Your task to perform on an android device: turn on improve location accuracy Image 0: 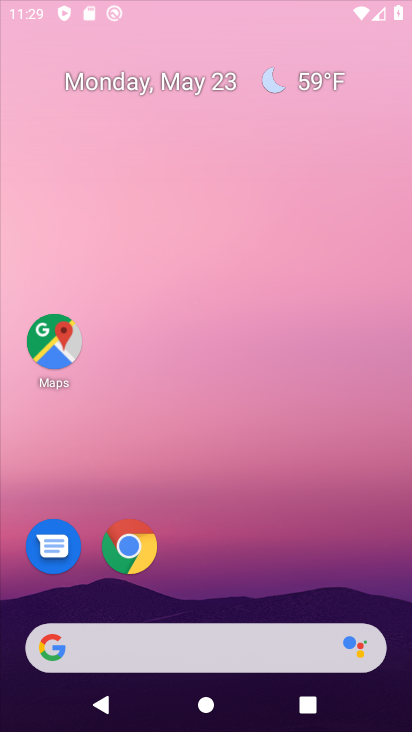
Step 0: click (219, 281)
Your task to perform on an android device: turn on improve location accuracy Image 1: 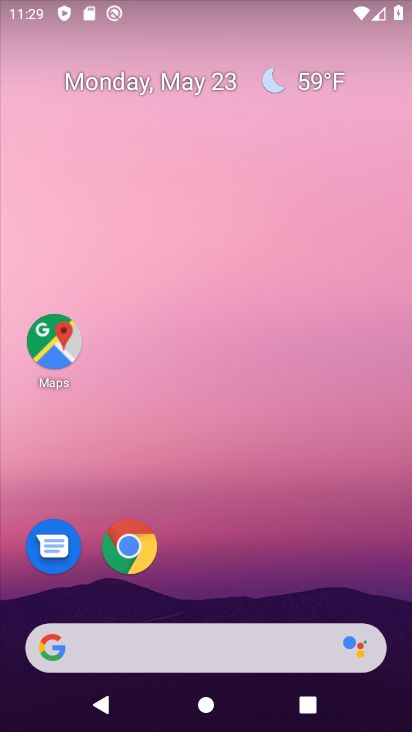
Step 1: drag from (207, 571) to (245, 229)
Your task to perform on an android device: turn on improve location accuracy Image 2: 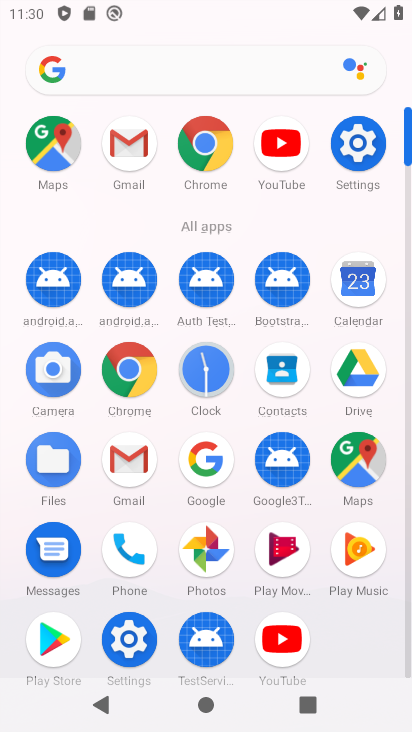
Step 2: click (368, 130)
Your task to perform on an android device: turn on improve location accuracy Image 3: 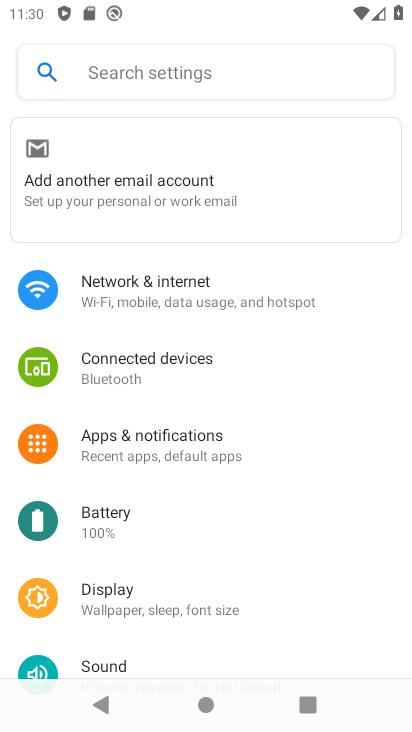
Step 3: drag from (170, 628) to (205, 316)
Your task to perform on an android device: turn on improve location accuracy Image 4: 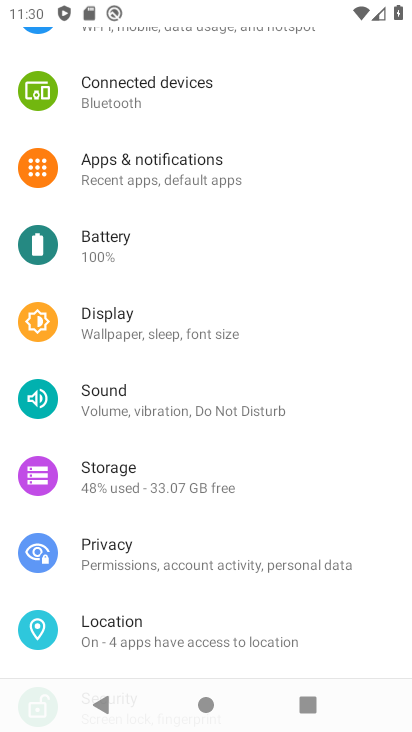
Step 4: drag from (236, 619) to (261, 92)
Your task to perform on an android device: turn on improve location accuracy Image 5: 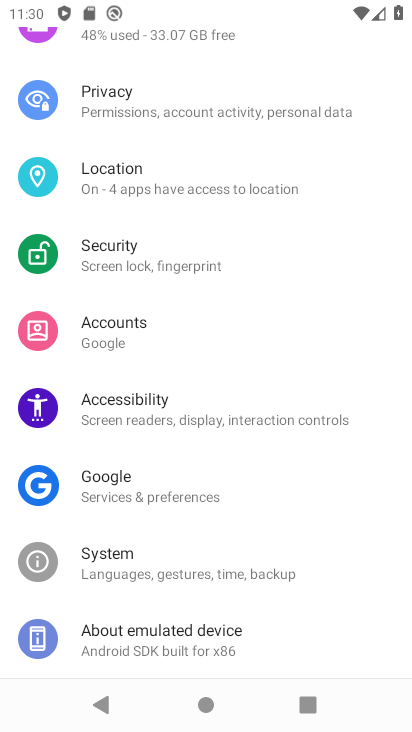
Step 5: click (138, 188)
Your task to perform on an android device: turn on improve location accuracy Image 6: 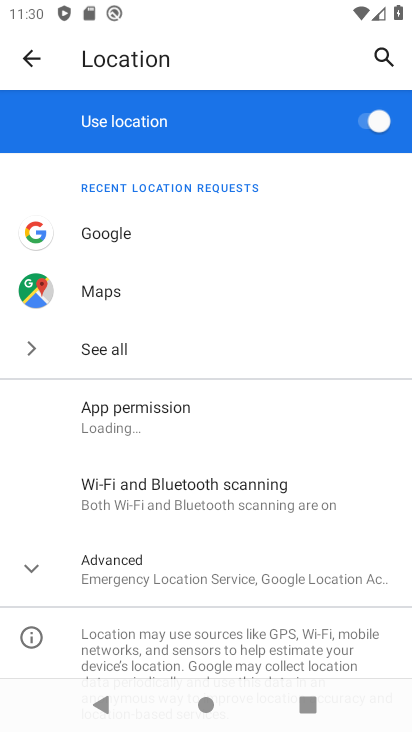
Step 6: click (132, 565)
Your task to perform on an android device: turn on improve location accuracy Image 7: 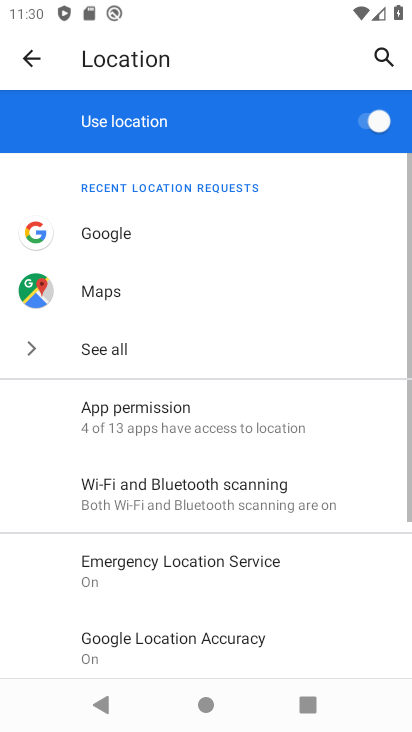
Step 7: drag from (216, 552) to (300, 143)
Your task to perform on an android device: turn on improve location accuracy Image 8: 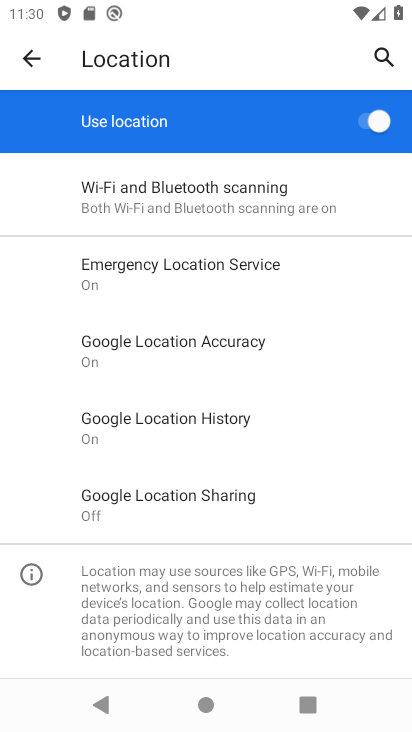
Step 8: click (226, 346)
Your task to perform on an android device: turn on improve location accuracy Image 9: 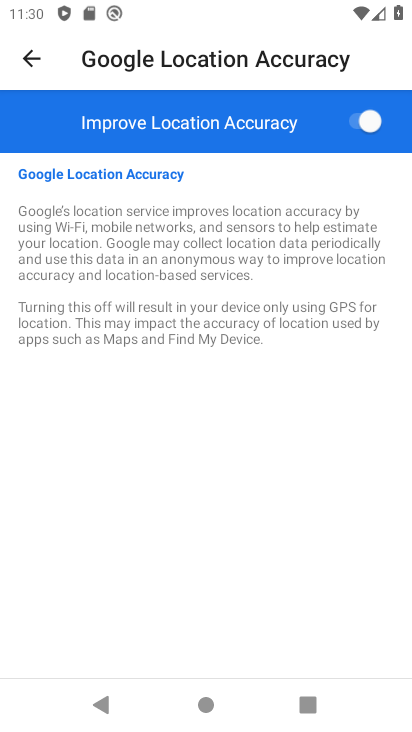
Step 9: task complete